Your task to perform on an android device: make emails show in primary in the gmail app Image 0: 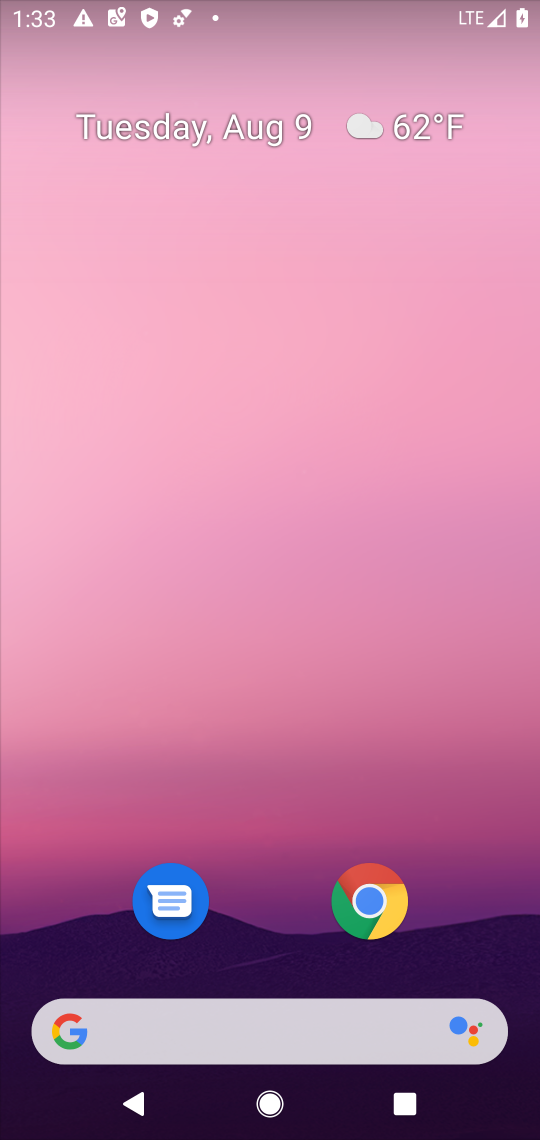
Step 0: drag from (522, 992) to (458, 155)
Your task to perform on an android device: make emails show in primary in the gmail app Image 1: 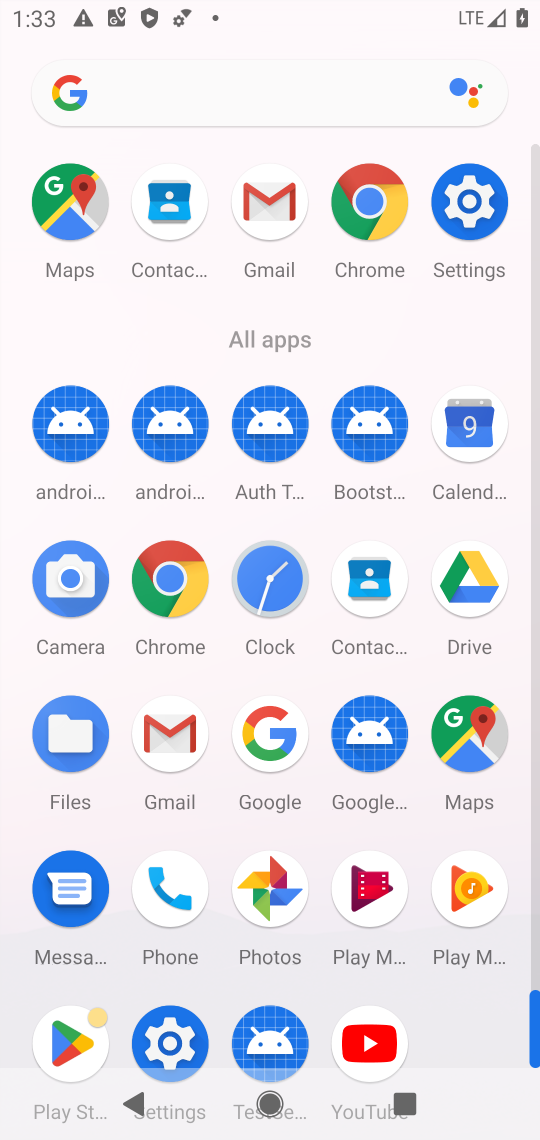
Step 1: click (169, 738)
Your task to perform on an android device: make emails show in primary in the gmail app Image 2: 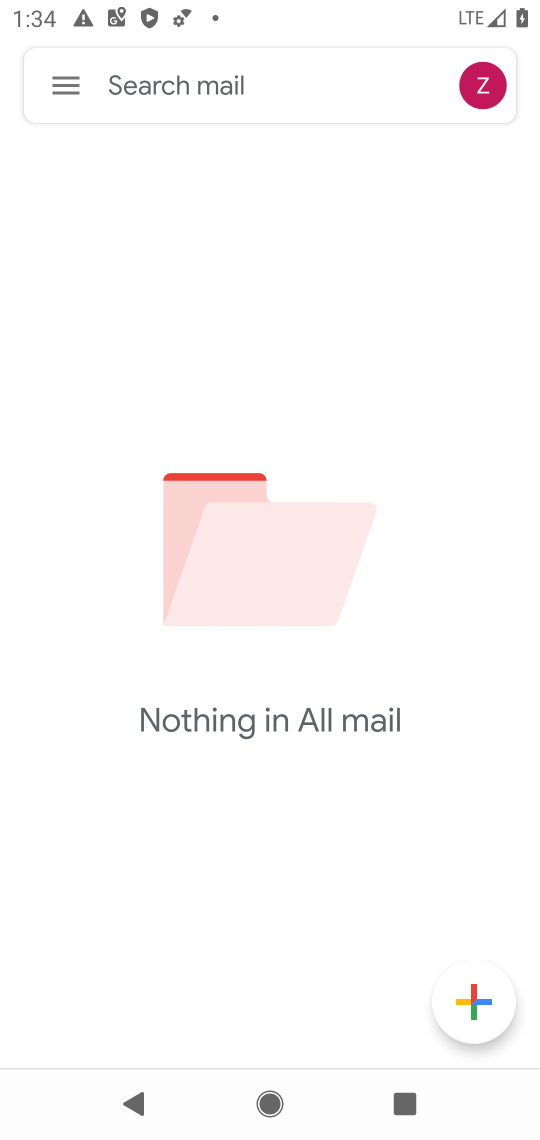
Step 2: click (60, 93)
Your task to perform on an android device: make emails show in primary in the gmail app Image 3: 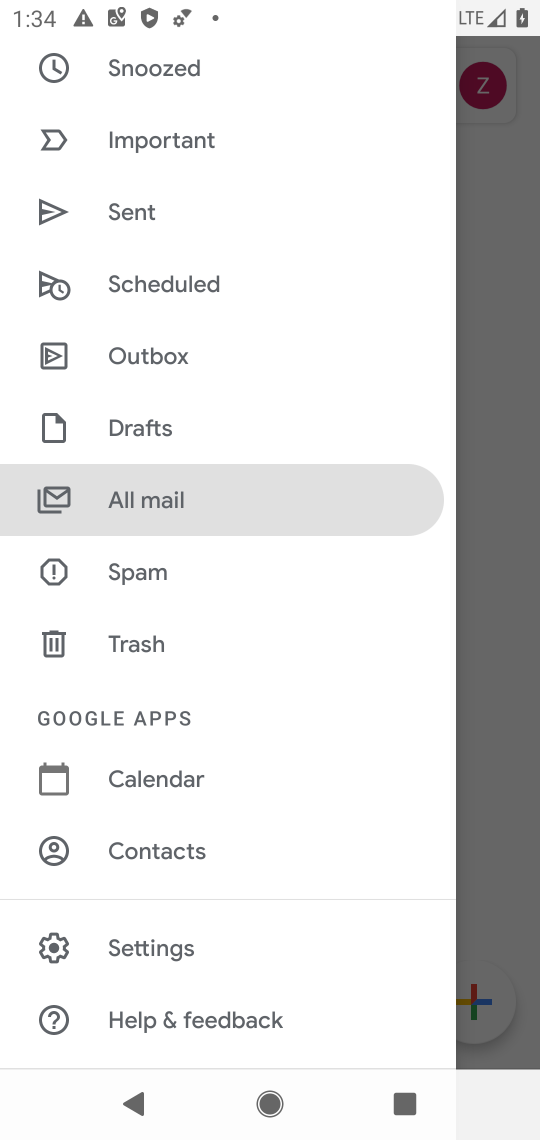
Step 3: drag from (296, 923) to (295, 333)
Your task to perform on an android device: make emails show in primary in the gmail app Image 4: 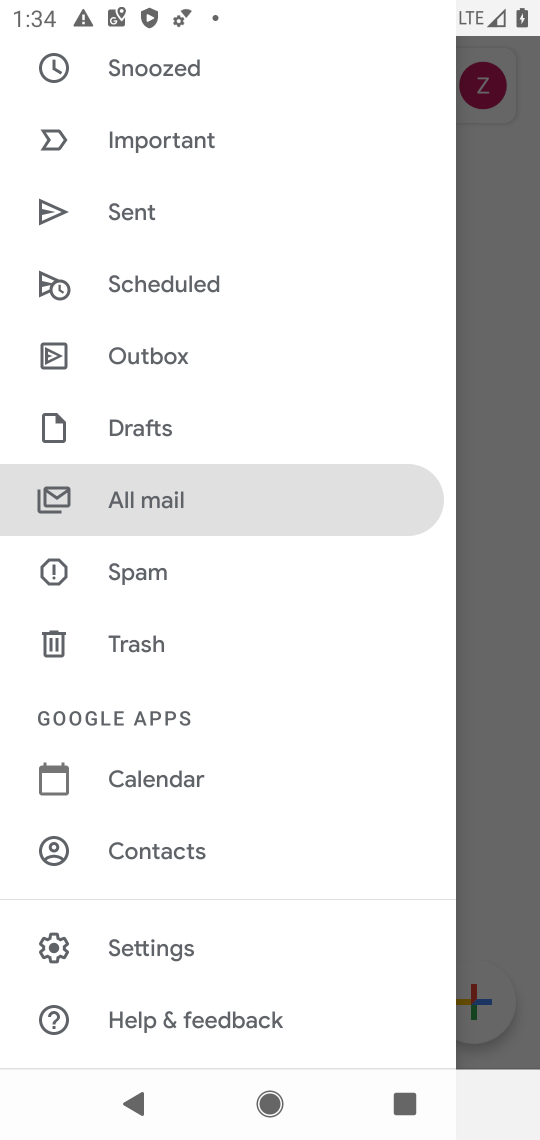
Step 4: click (121, 943)
Your task to perform on an android device: make emails show in primary in the gmail app Image 5: 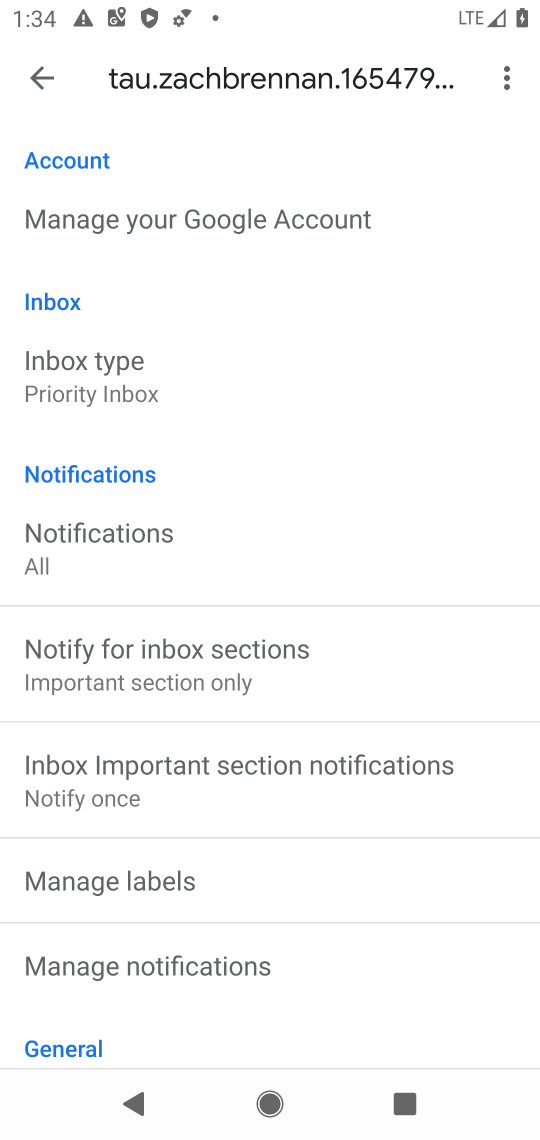
Step 5: click (61, 391)
Your task to perform on an android device: make emails show in primary in the gmail app Image 6: 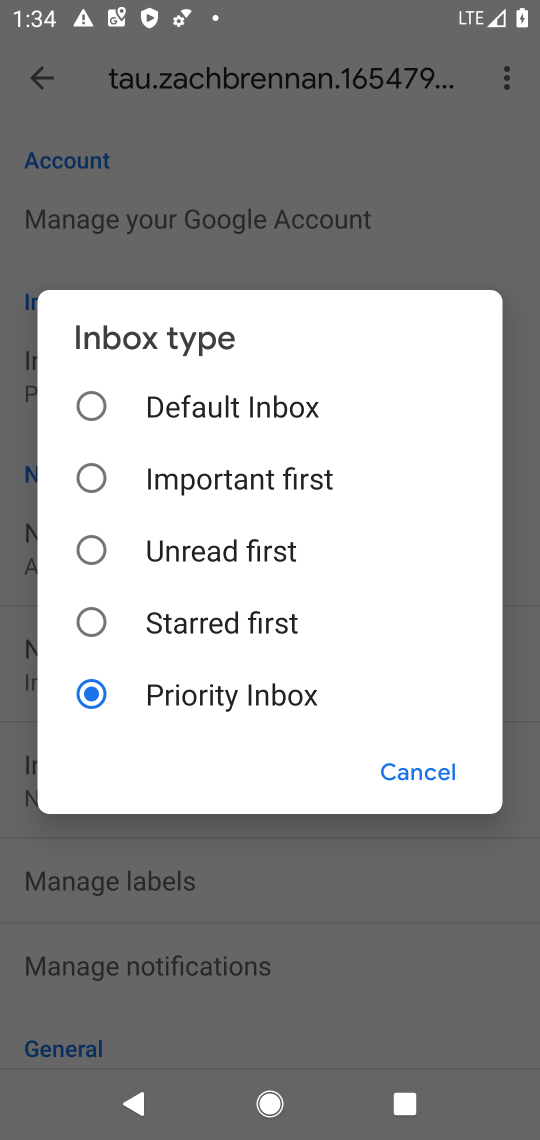
Step 6: click (97, 402)
Your task to perform on an android device: make emails show in primary in the gmail app Image 7: 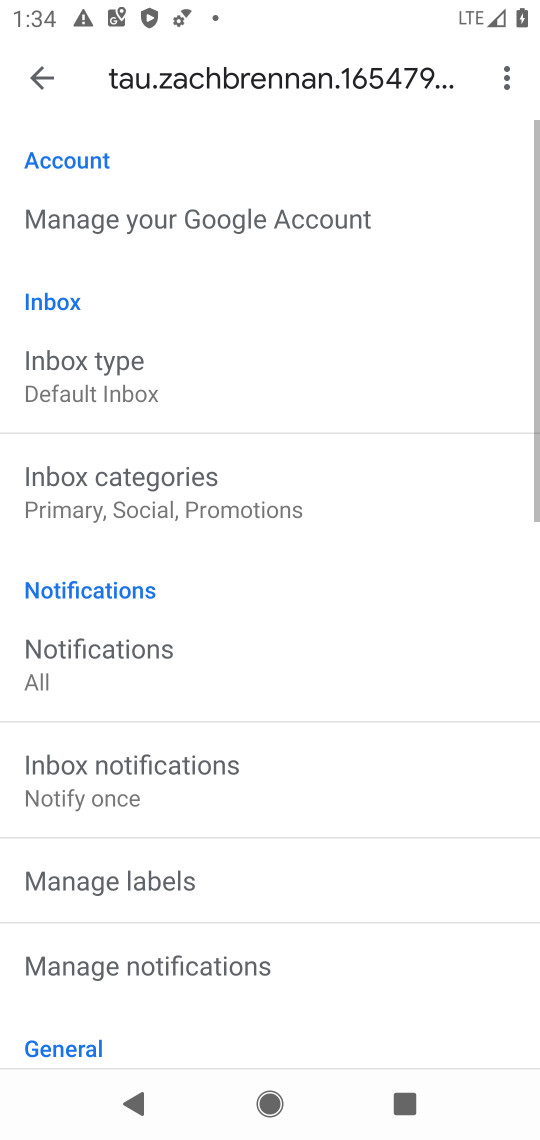
Step 7: click (133, 476)
Your task to perform on an android device: make emails show in primary in the gmail app Image 8: 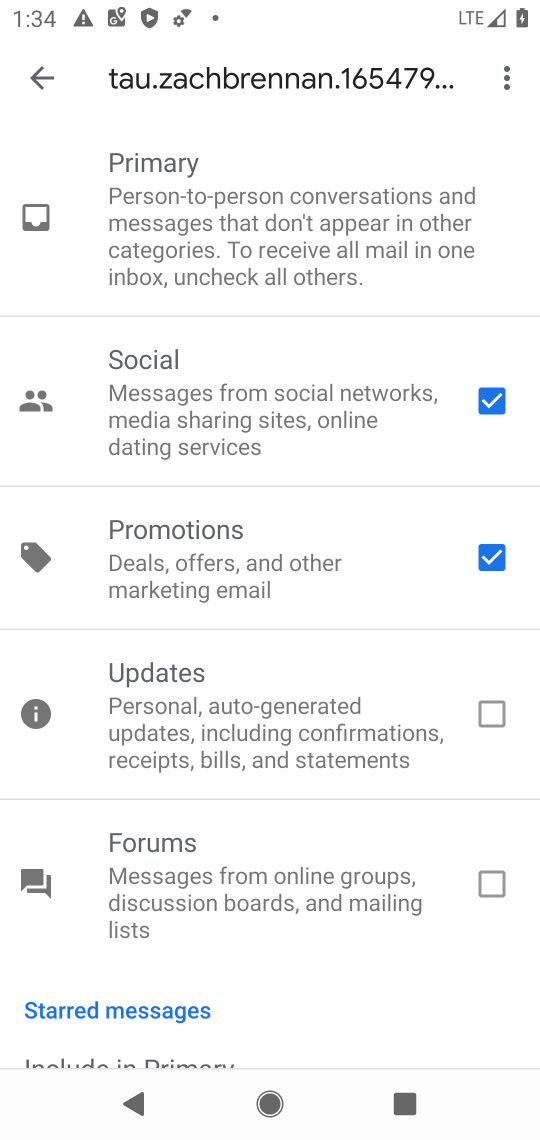
Step 8: click (495, 549)
Your task to perform on an android device: make emails show in primary in the gmail app Image 9: 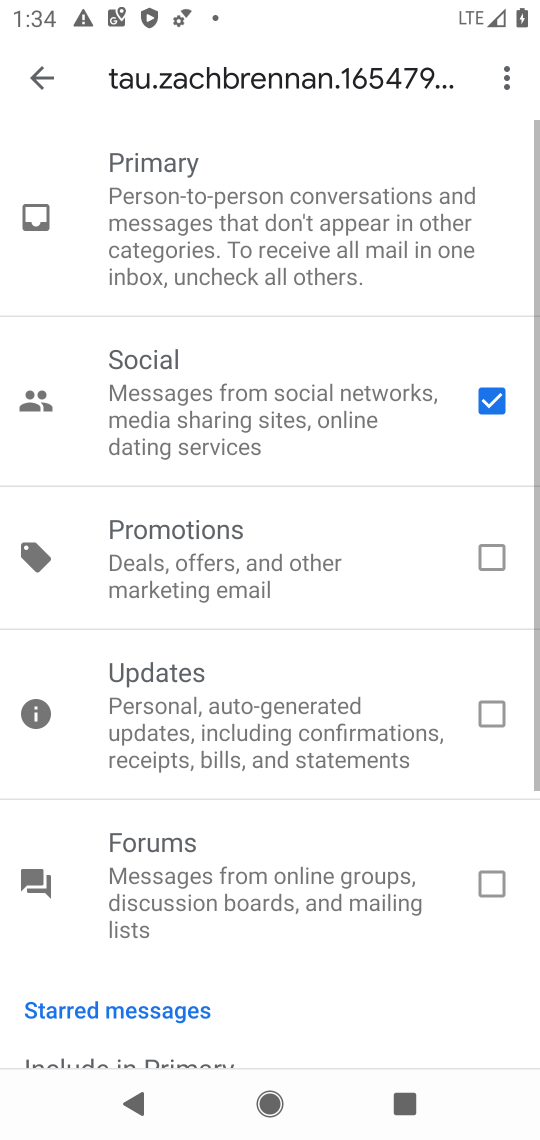
Step 9: click (490, 402)
Your task to perform on an android device: make emails show in primary in the gmail app Image 10: 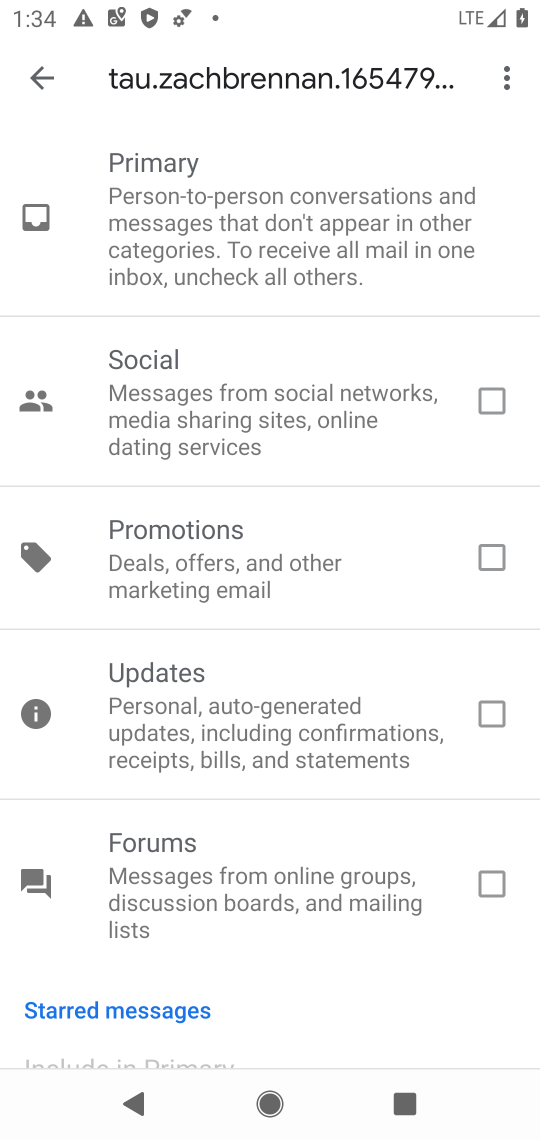
Step 10: task complete